Your task to perform on an android device: turn off location history Image 0: 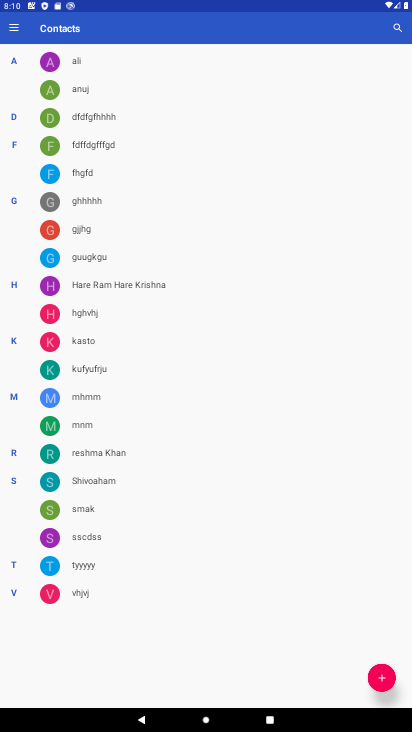
Step 0: press home button
Your task to perform on an android device: turn off location history Image 1: 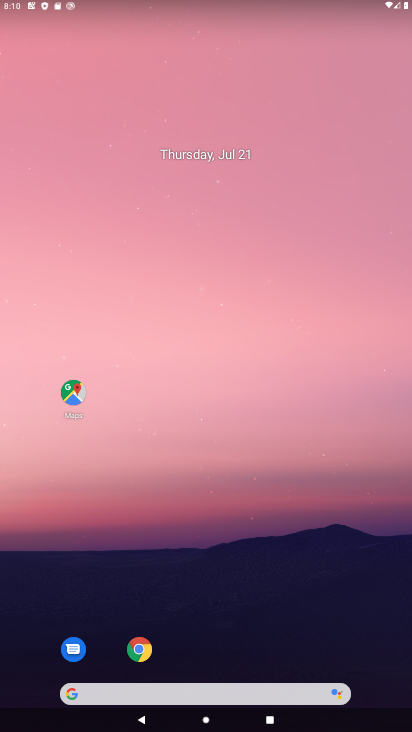
Step 1: drag from (219, 638) to (180, 2)
Your task to perform on an android device: turn off location history Image 2: 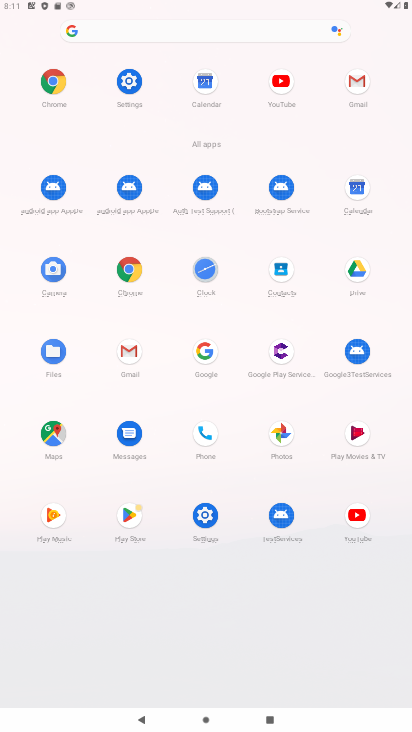
Step 2: click (202, 527)
Your task to perform on an android device: turn off location history Image 3: 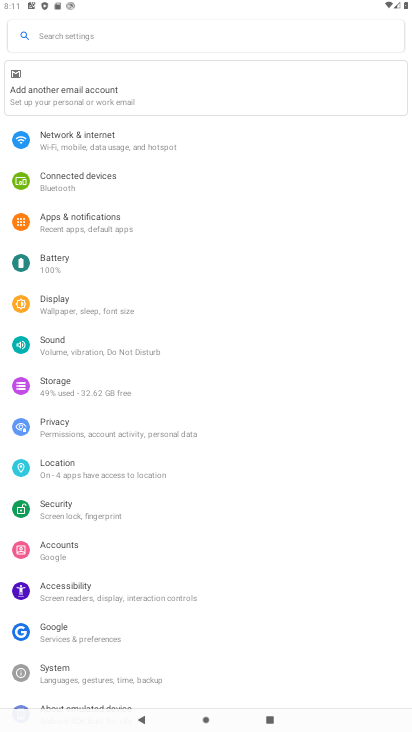
Step 3: click (81, 474)
Your task to perform on an android device: turn off location history Image 4: 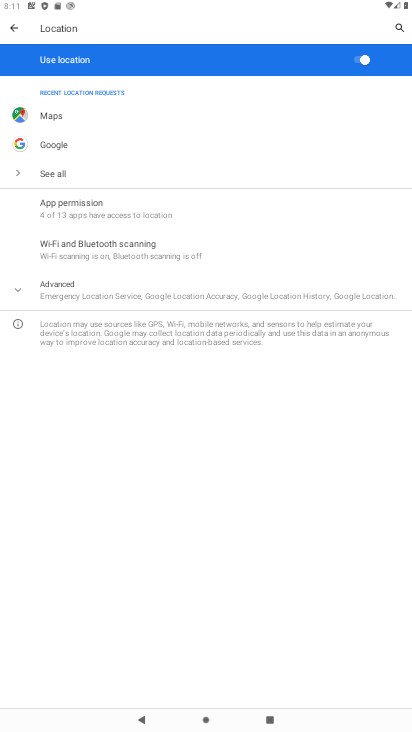
Step 4: click (158, 297)
Your task to perform on an android device: turn off location history Image 5: 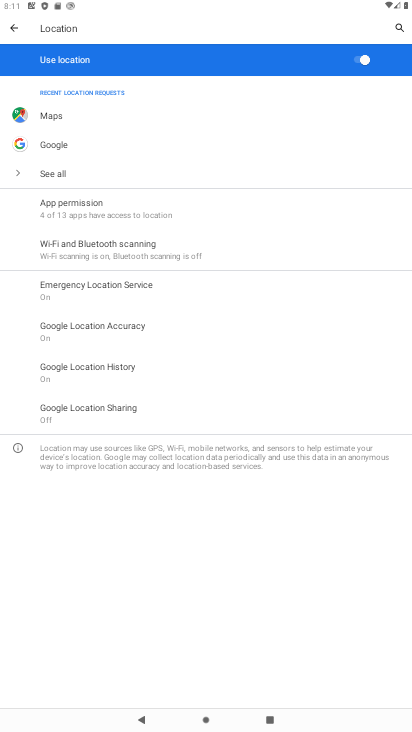
Step 5: click (101, 370)
Your task to perform on an android device: turn off location history Image 6: 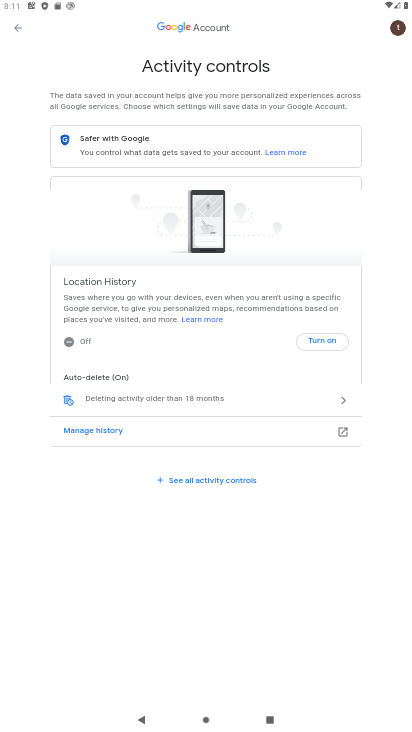
Step 6: task complete